Your task to perform on an android device: Find coffee shops on Maps Image 0: 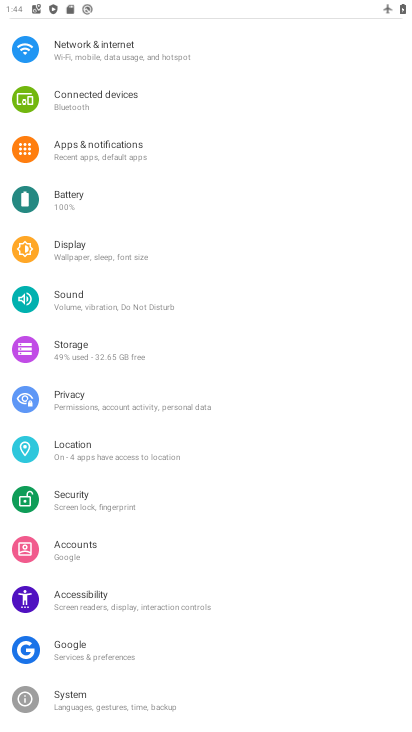
Step 0: click (72, 45)
Your task to perform on an android device: Find coffee shops on Maps Image 1: 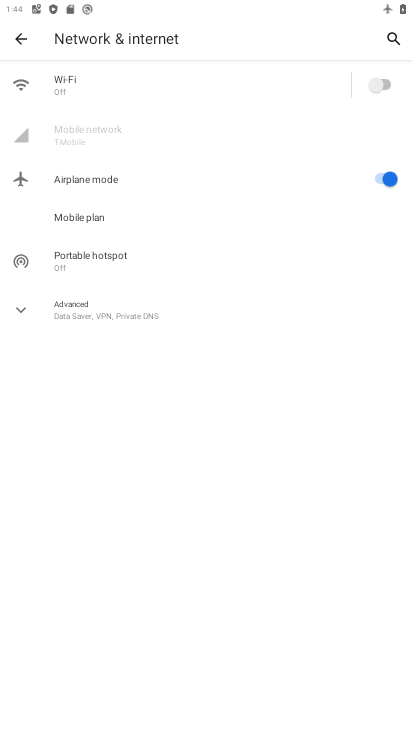
Step 1: click (388, 88)
Your task to perform on an android device: Find coffee shops on Maps Image 2: 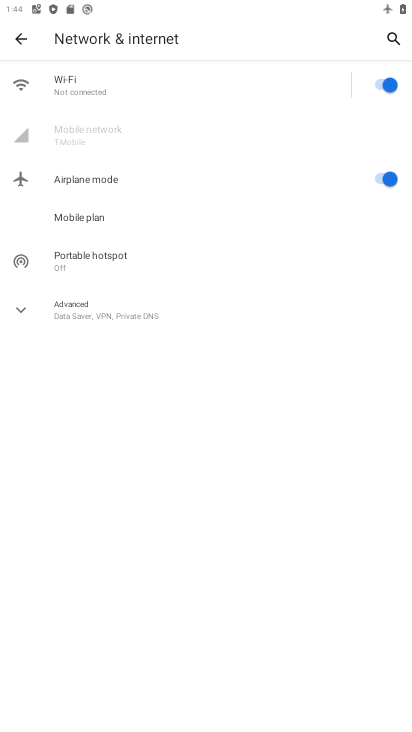
Step 2: click (389, 181)
Your task to perform on an android device: Find coffee shops on Maps Image 3: 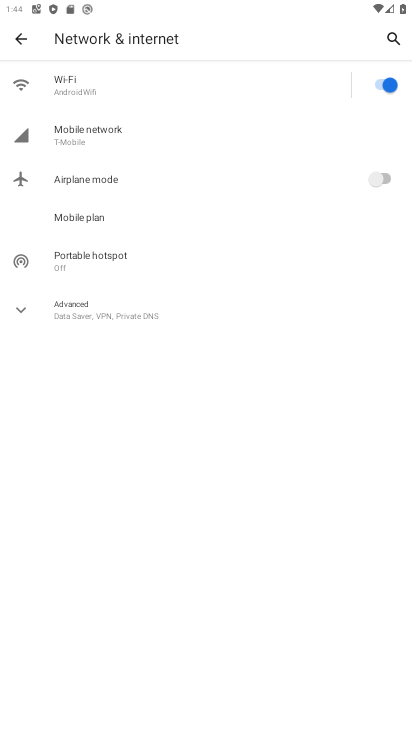
Step 3: press back button
Your task to perform on an android device: Find coffee shops on Maps Image 4: 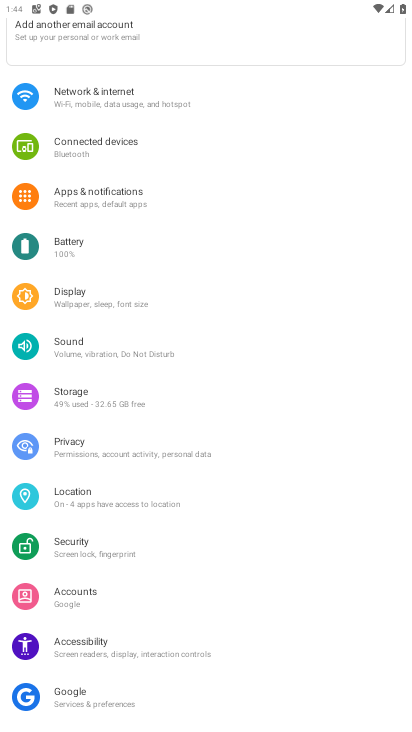
Step 4: press back button
Your task to perform on an android device: Find coffee shops on Maps Image 5: 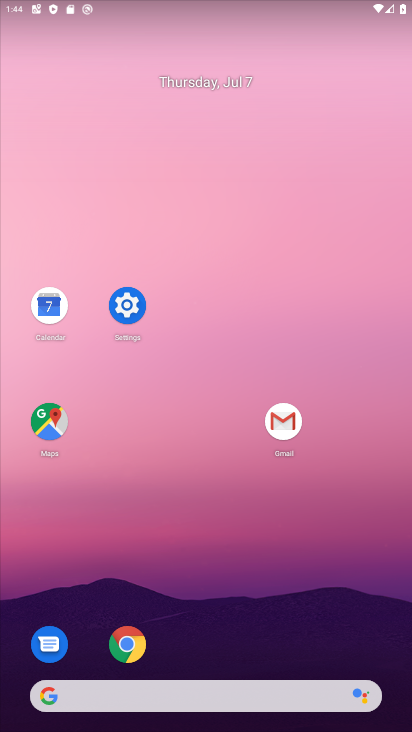
Step 5: click (56, 417)
Your task to perform on an android device: Find coffee shops on Maps Image 6: 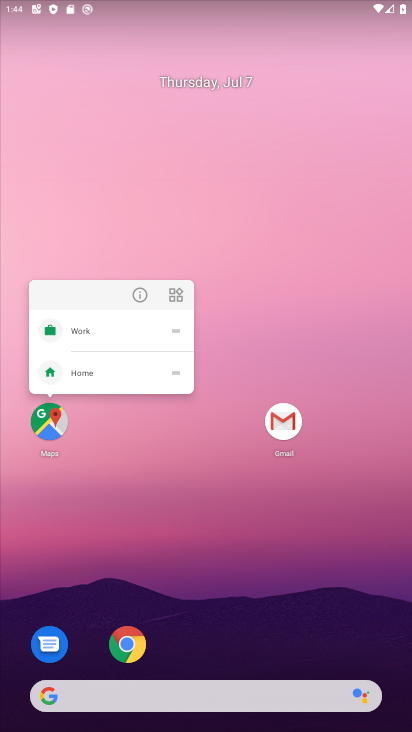
Step 6: click (50, 420)
Your task to perform on an android device: Find coffee shops on Maps Image 7: 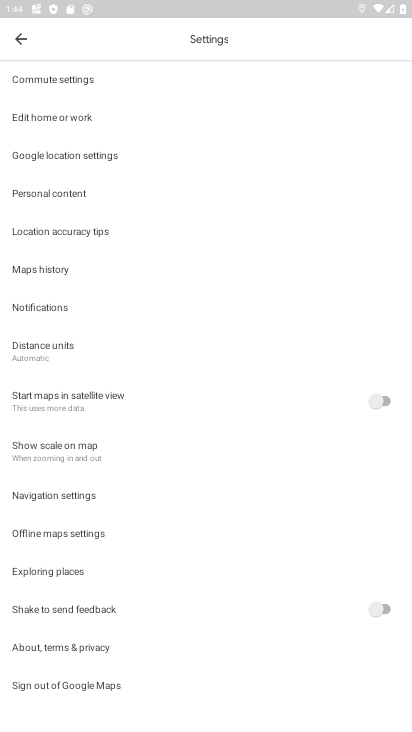
Step 7: click (16, 49)
Your task to perform on an android device: Find coffee shops on Maps Image 8: 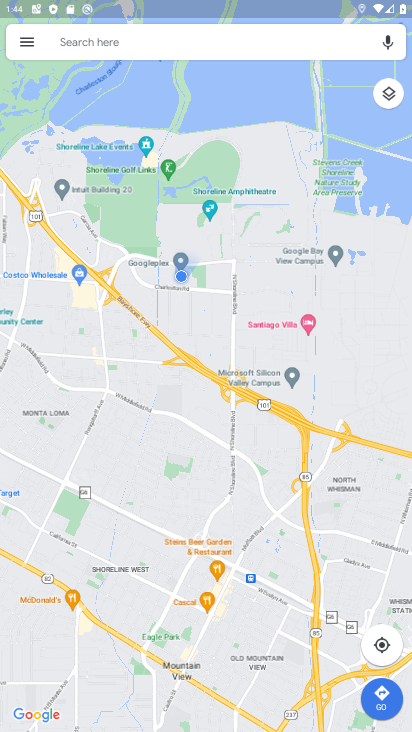
Step 8: click (70, 36)
Your task to perform on an android device: Find coffee shops on Maps Image 9: 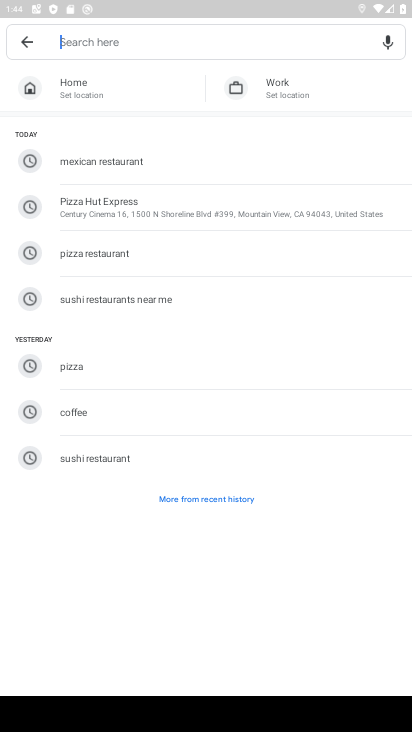
Step 9: type "coffee shops"
Your task to perform on an android device: Find coffee shops on Maps Image 10: 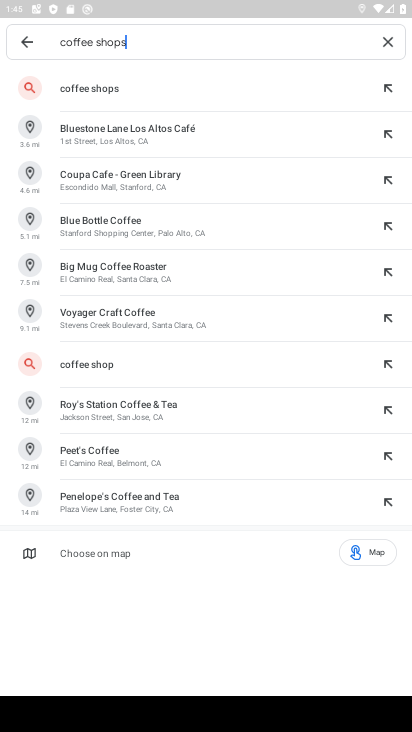
Step 10: click (126, 90)
Your task to perform on an android device: Find coffee shops on Maps Image 11: 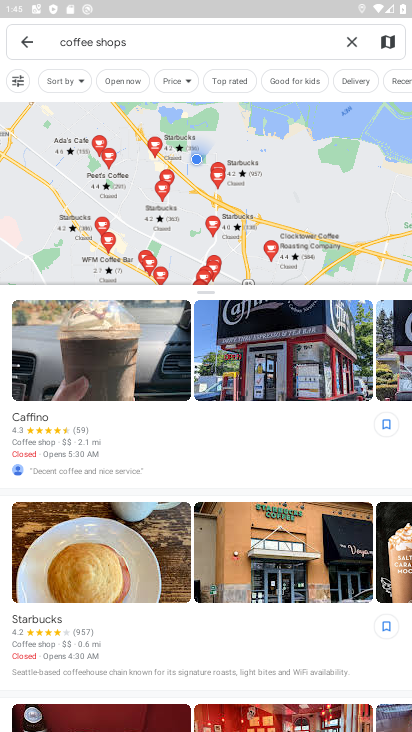
Step 11: task complete